Your task to perform on an android device: Go to settings Image 0: 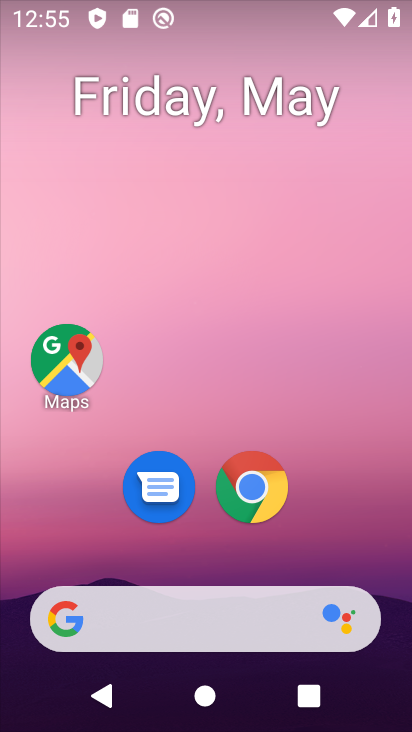
Step 0: drag from (171, 579) to (181, 95)
Your task to perform on an android device: Go to settings Image 1: 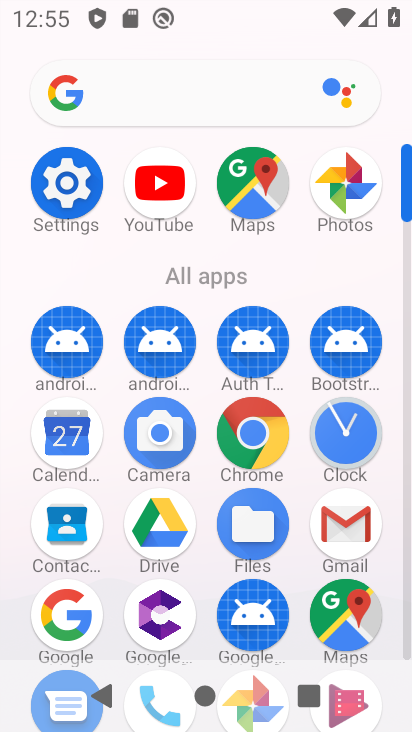
Step 1: click (79, 182)
Your task to perform on an android device: Go to settings Image 2: 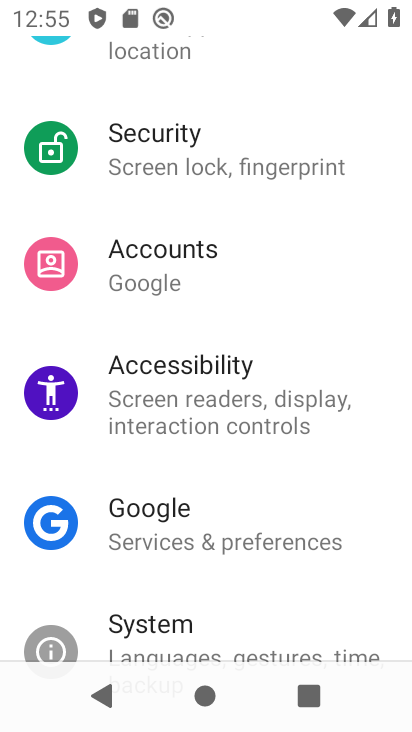
Step 2: task complete